Your task to perform on an android device: set default search engine in the chrome app Image 0: 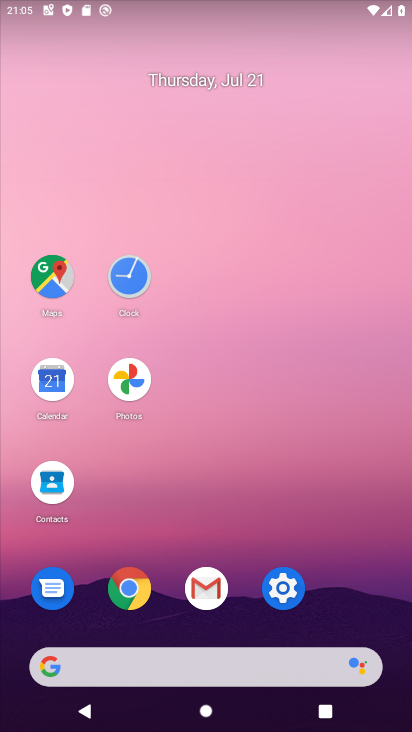
Step 0: click (131, 588)
Your task to perform on an android device: set default search engine in the chrome app Image 1: 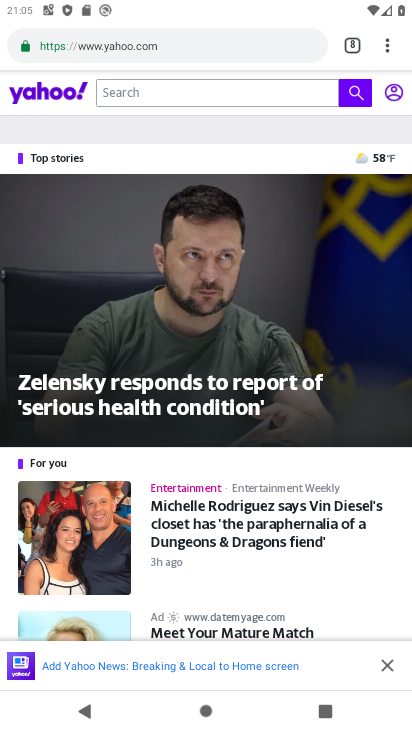
Step 1: click (387, 47)
Your task to perform on an android device: set default search engine in the chrome app Image 2: 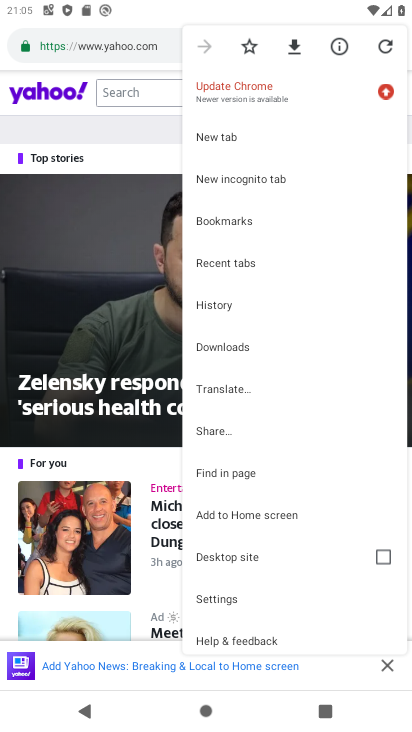
Step 2: click (215, 596)
Your task to perform on an android device: set default search engine in the chrome app Image 3: 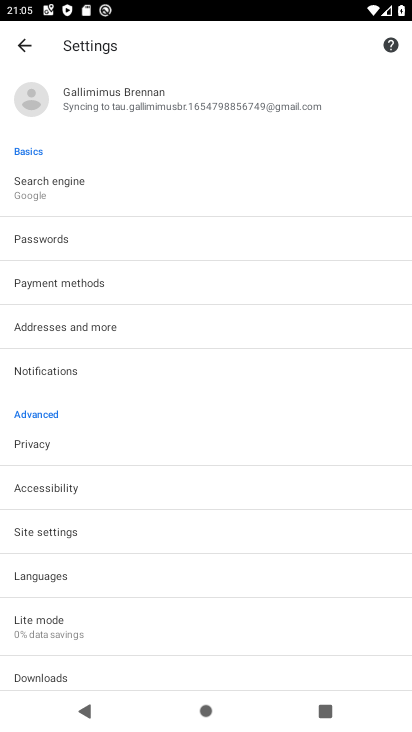
Step 3: click (39, 179)
Your task to perform on an android device: set default search engine in the chrome app Image 4: 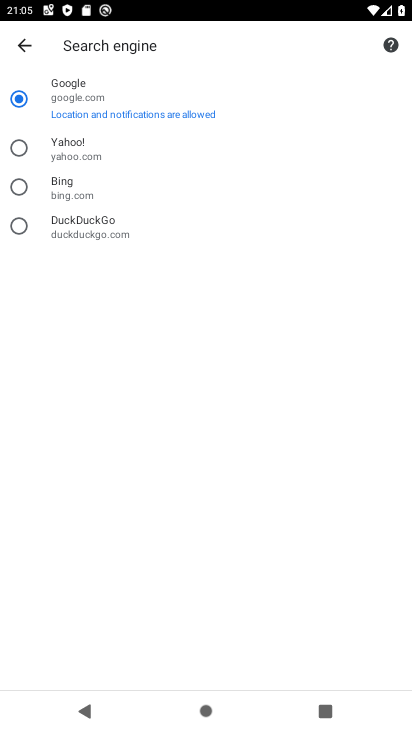
Step 4: task complete